Your task to perform on an android device: Open notification settings Image 0: 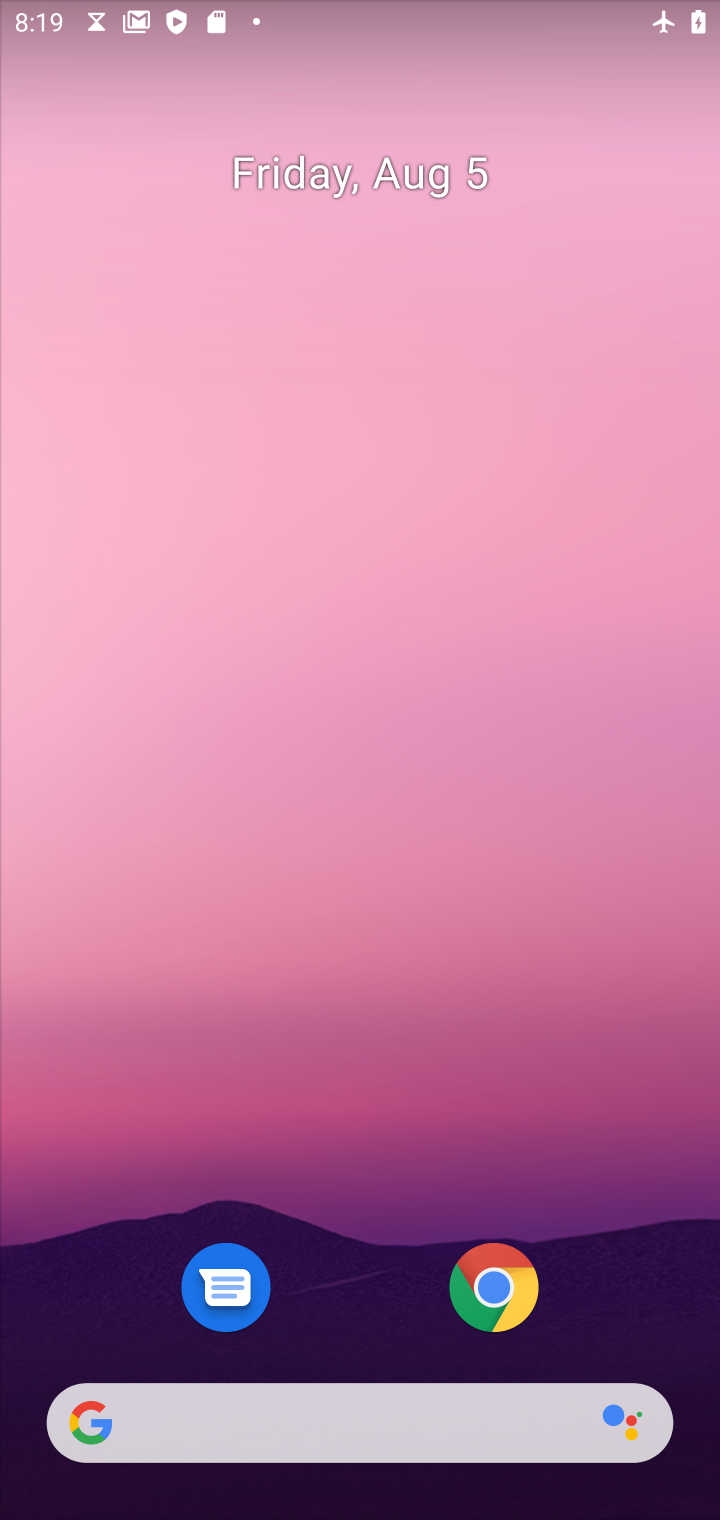
Step 0: drag from (372, 1123) to (383, 114)
Your task to perform on an android device: Open notification settings Image 1: 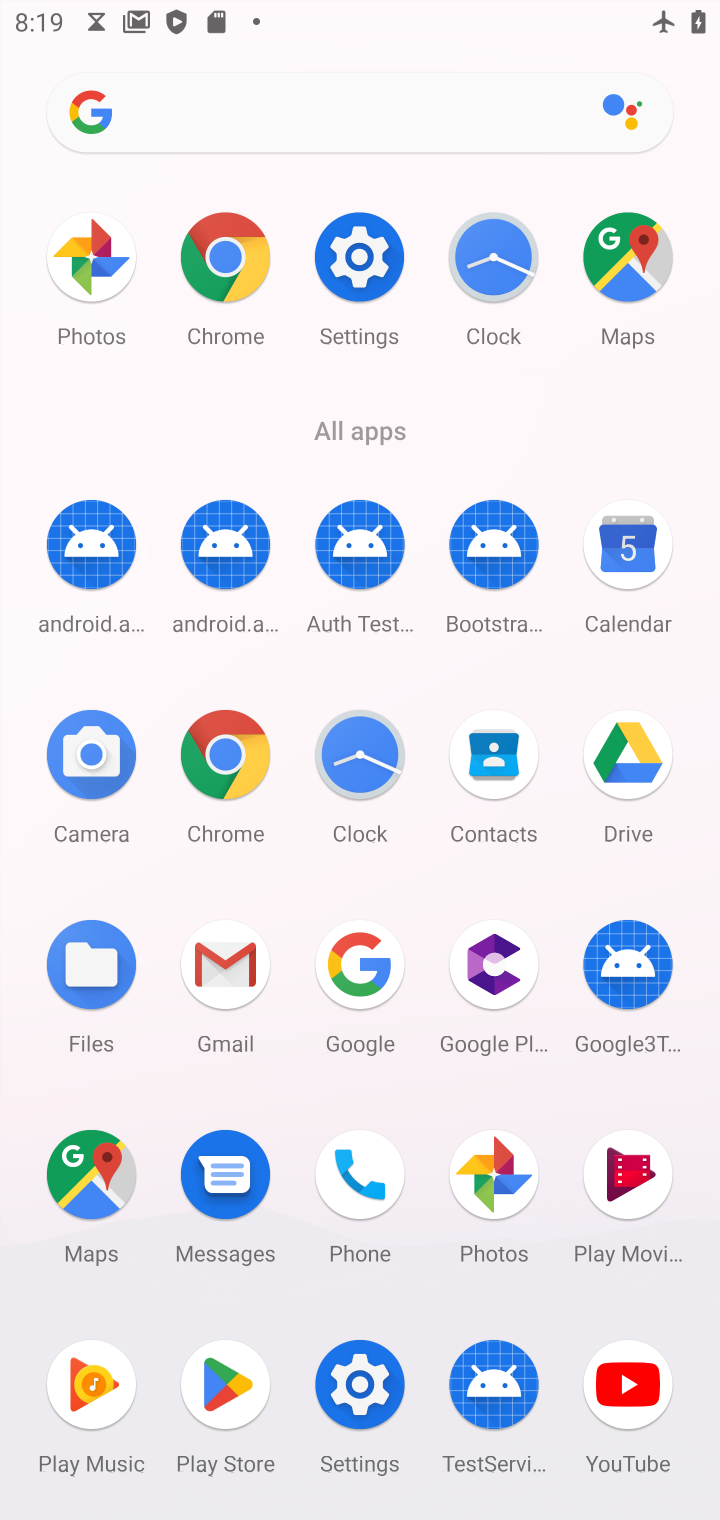
Step 1: click (363, 254)
Your task to perform on an android device: Open notification settings Image 2: 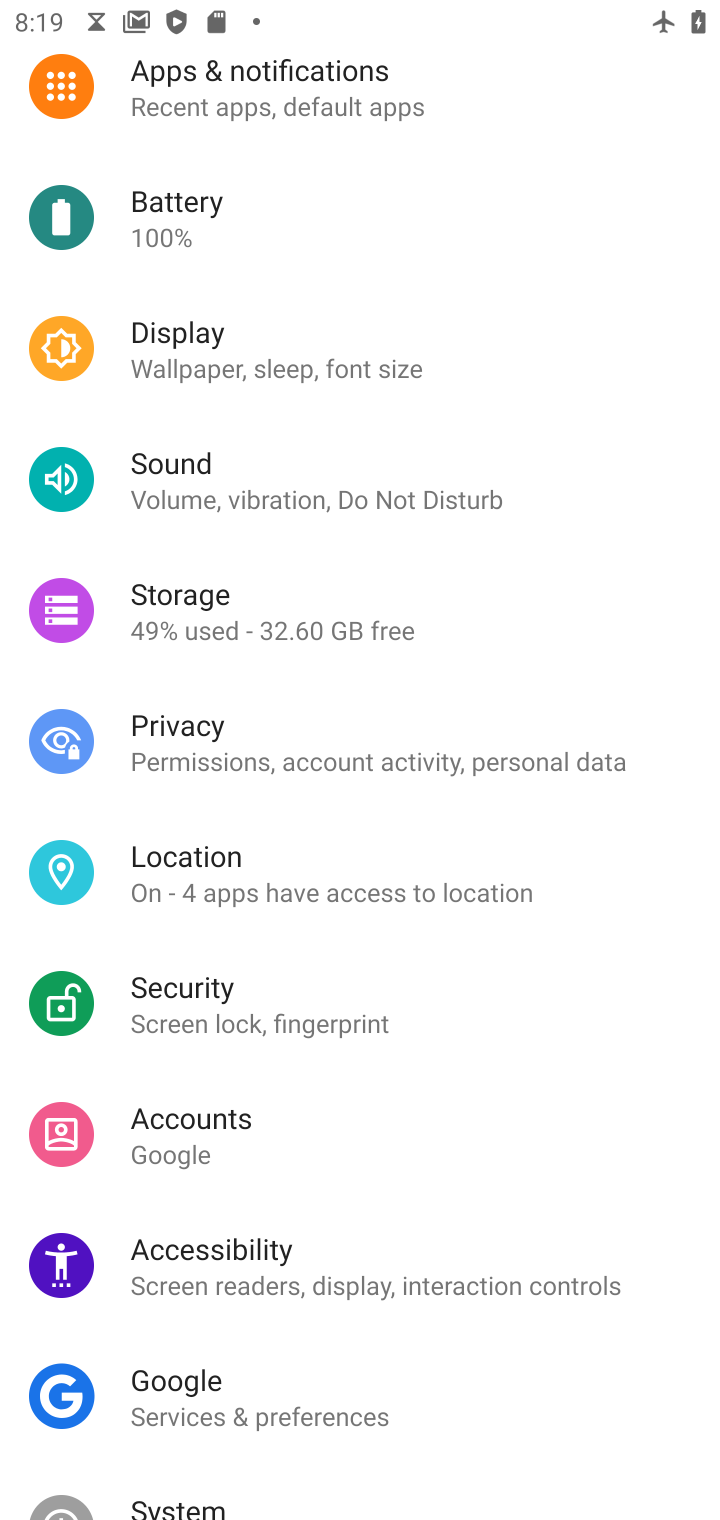
Step 2: click (235, 92)
Your task to perform on an android device: Open notification settings Image 3: 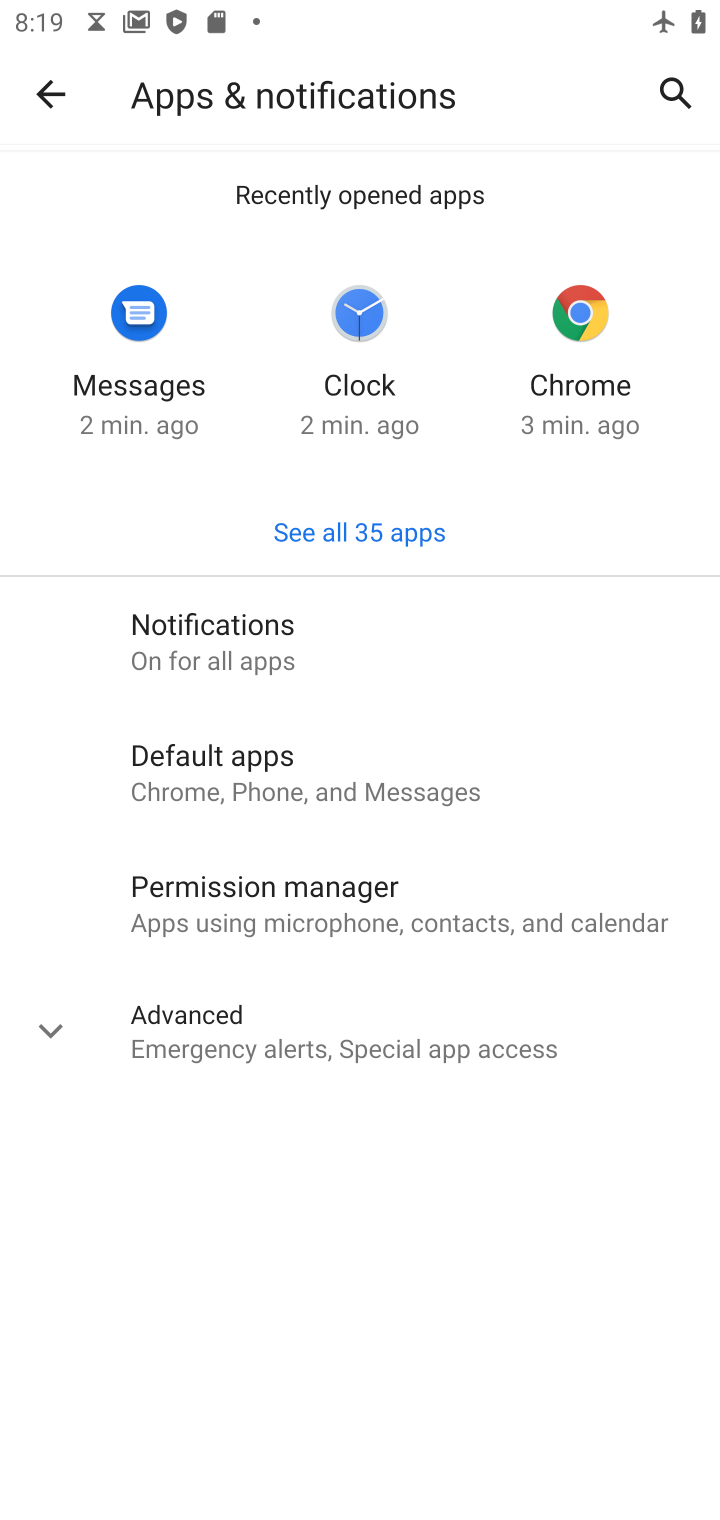
Step 3: click (190, 643)
Your task to perform on an android device: Open notification settings Image 4: 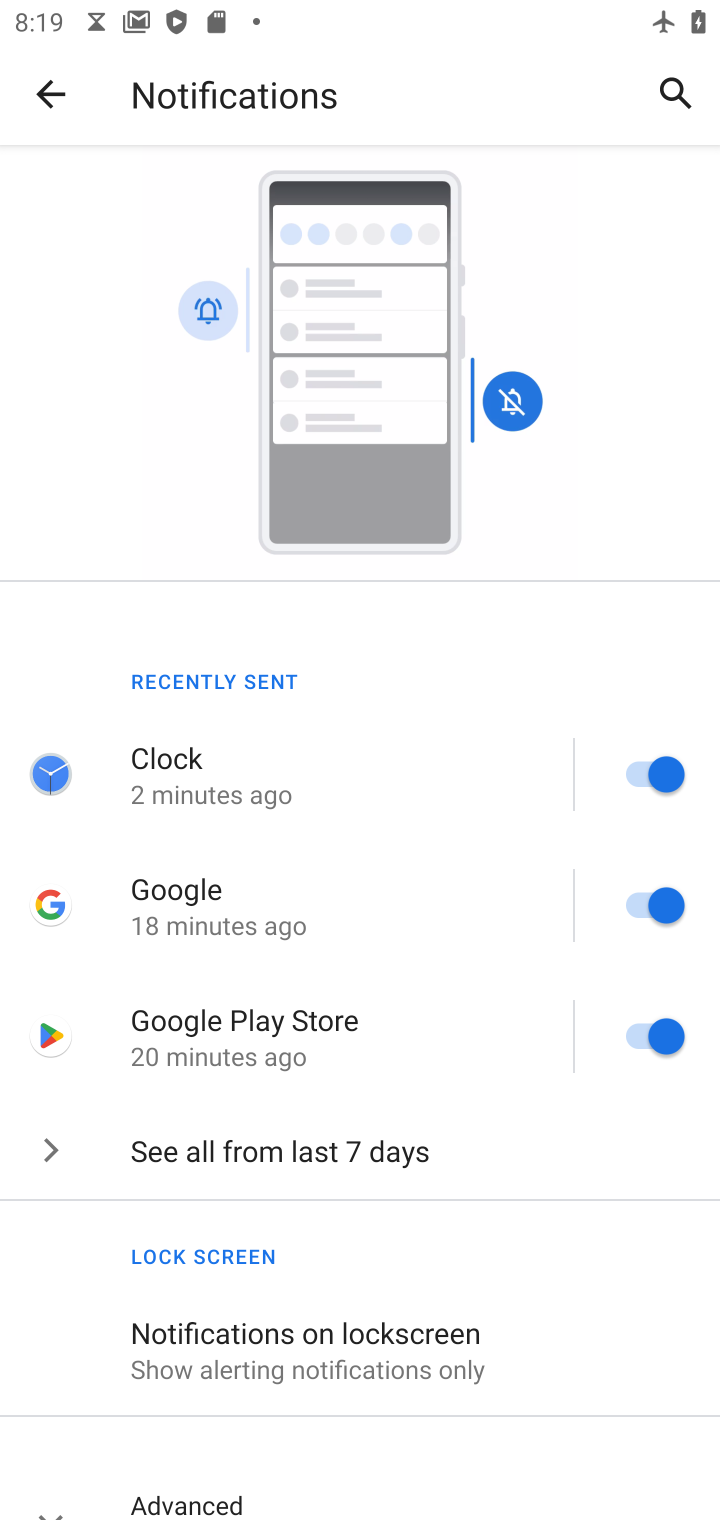
Step 4: task complete